Your task to perform on an android device: install app "Viber Messenger" Image 0: 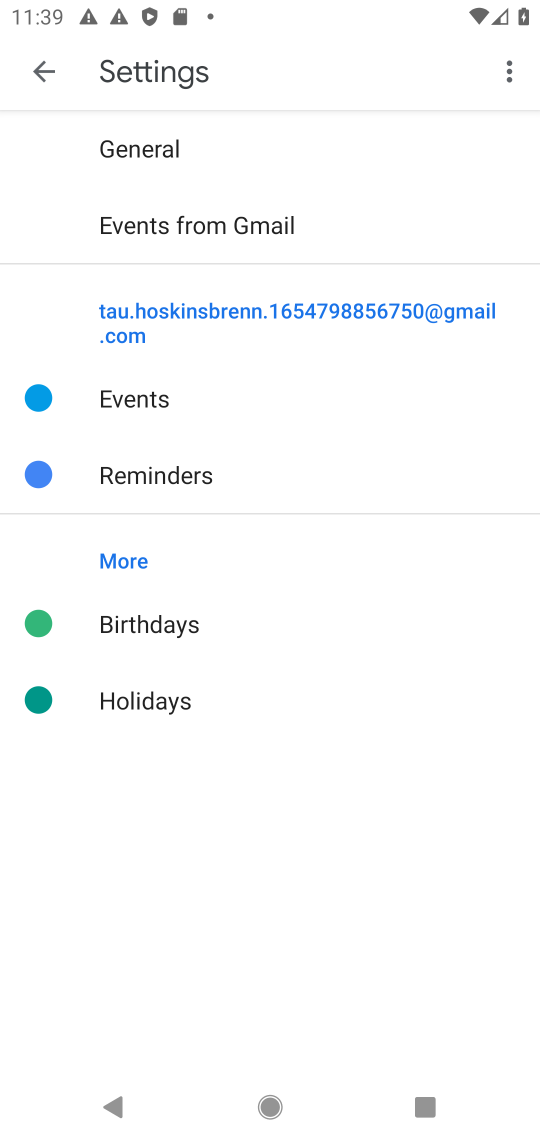
Step 0: press home button
Your task to perform on an android device: install app "Viber Messenger" Image 1: 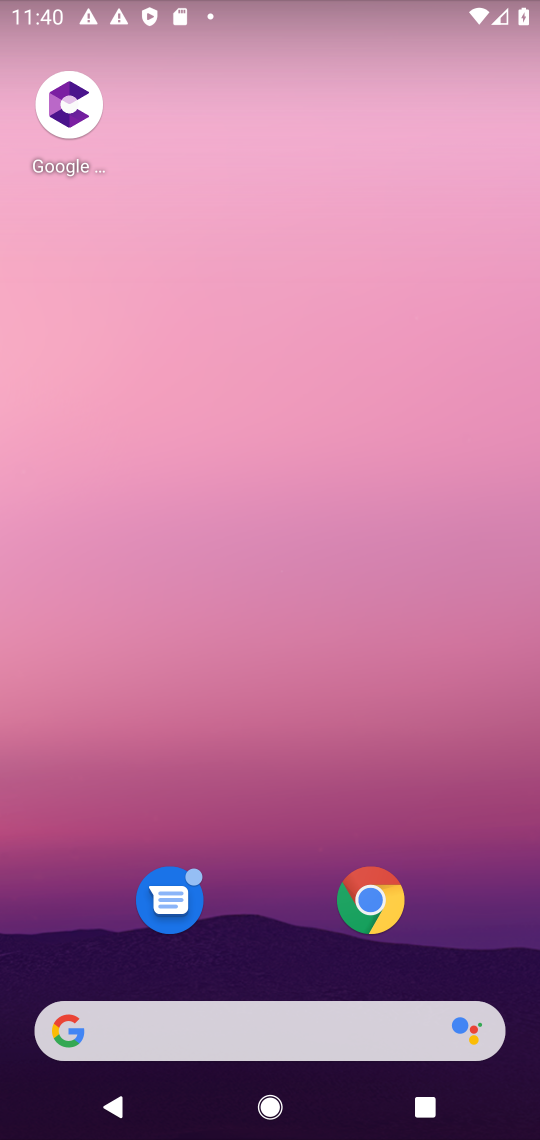
Step 1: drag from (354, 1009) to (2, 449)
Your task to perform on an android device: install app "Viber Messenger" Image 2: 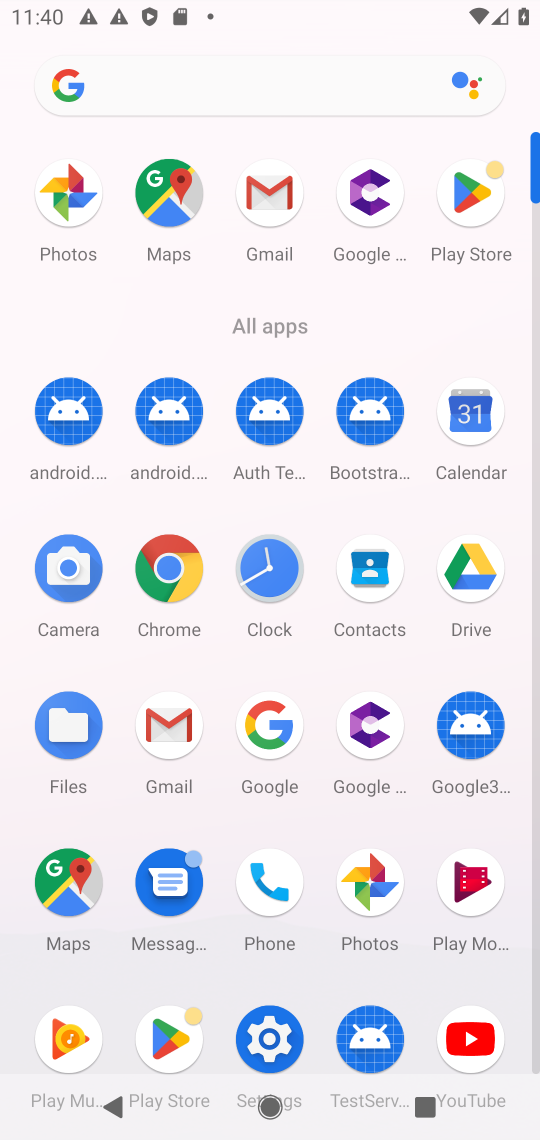
Step 2: click (462, 217)
Your task to perform on an android device: install app "Viber Messenger" Image 3: 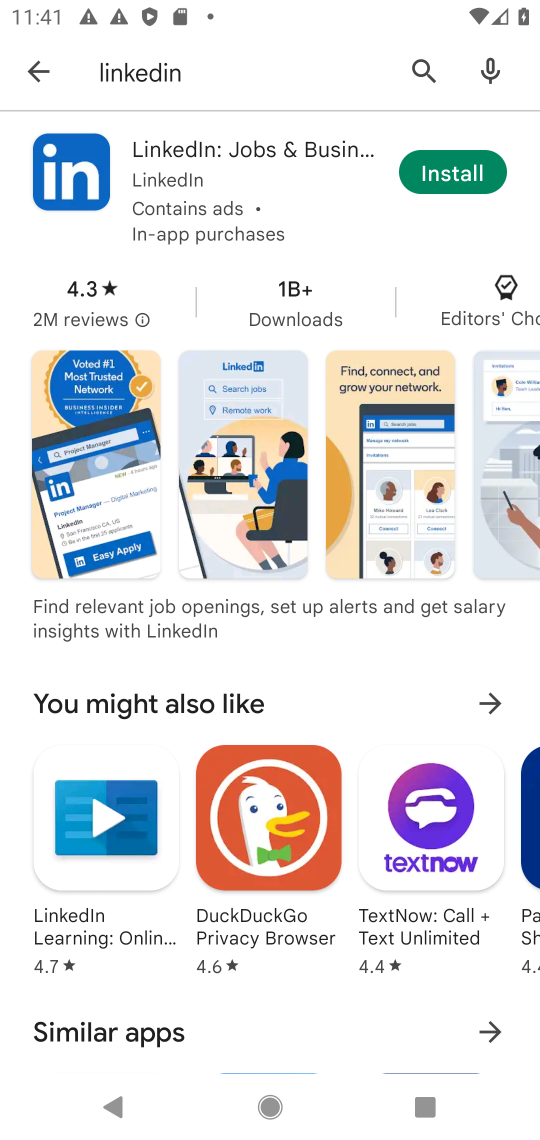
Step 3: click (417, 72)
Your task to perform on an android device: install app "Viber Messenger" Image 4: 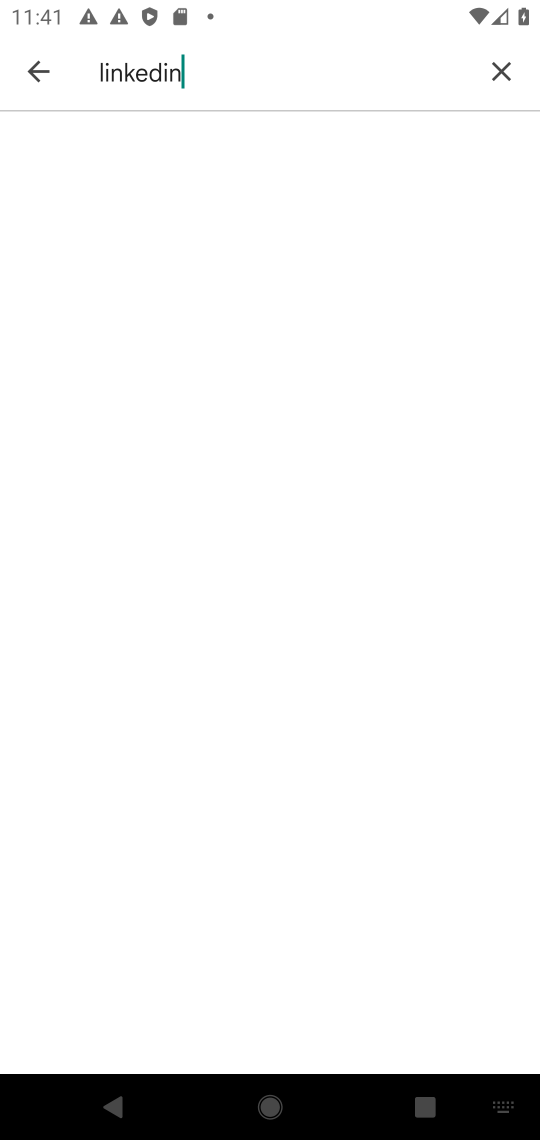
Step 4: click (504, 72)
Your task to perform on an android device: install app "Viber Messenger" Image 5: 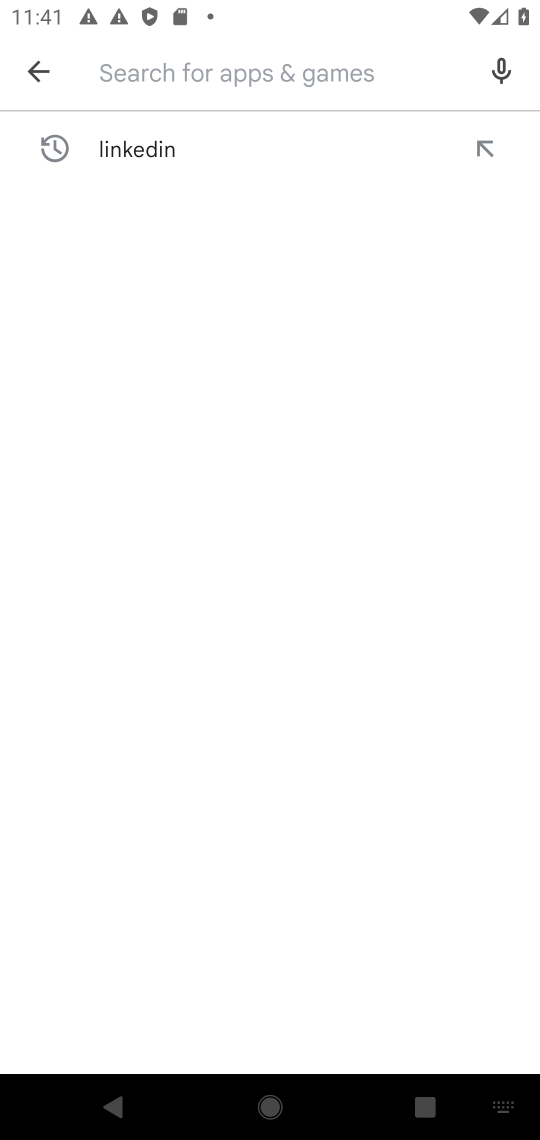
Step 5: type "viber Messenger"
Your task to perform on an android device: install app "Viber Messenger" Image 6: 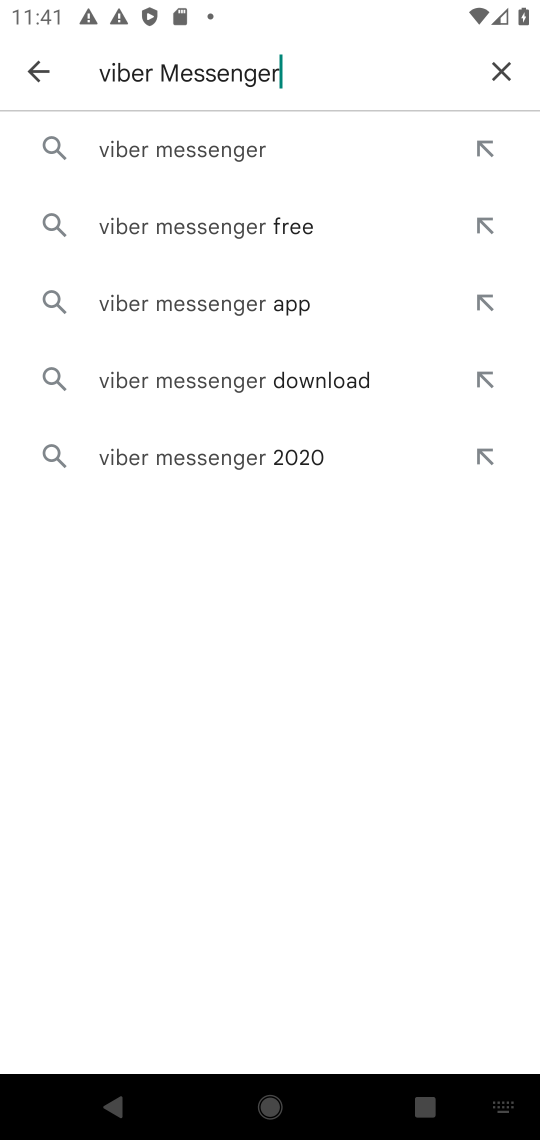
Step 6: type "viber"
Your task to perform on an android device: install app "Viber Messenger" Image 7: 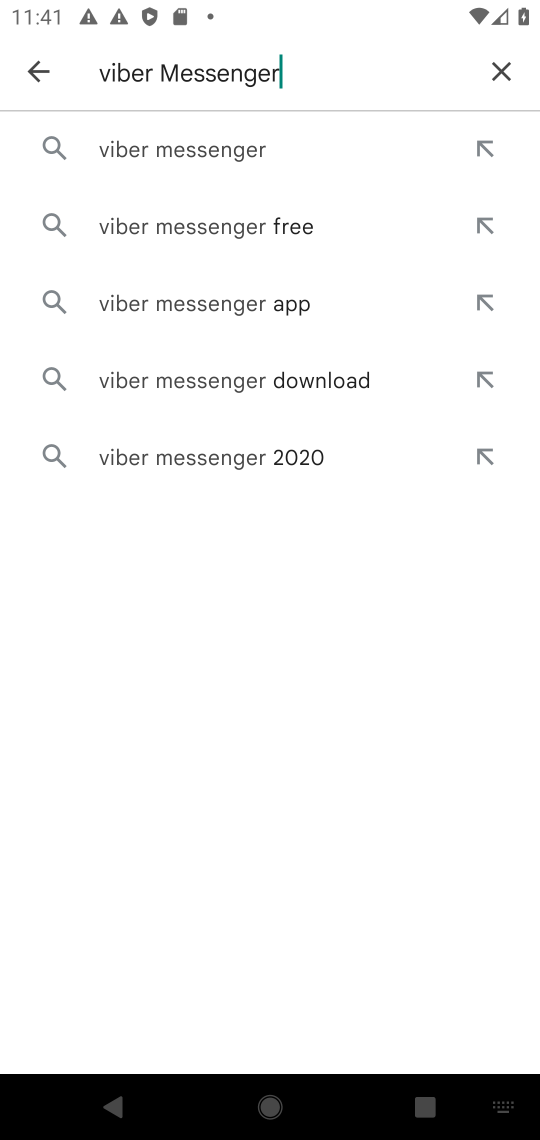
Step 7: click (225, 148)
Your task to perform on an android device: install app "Viber Messenger" Image 8: 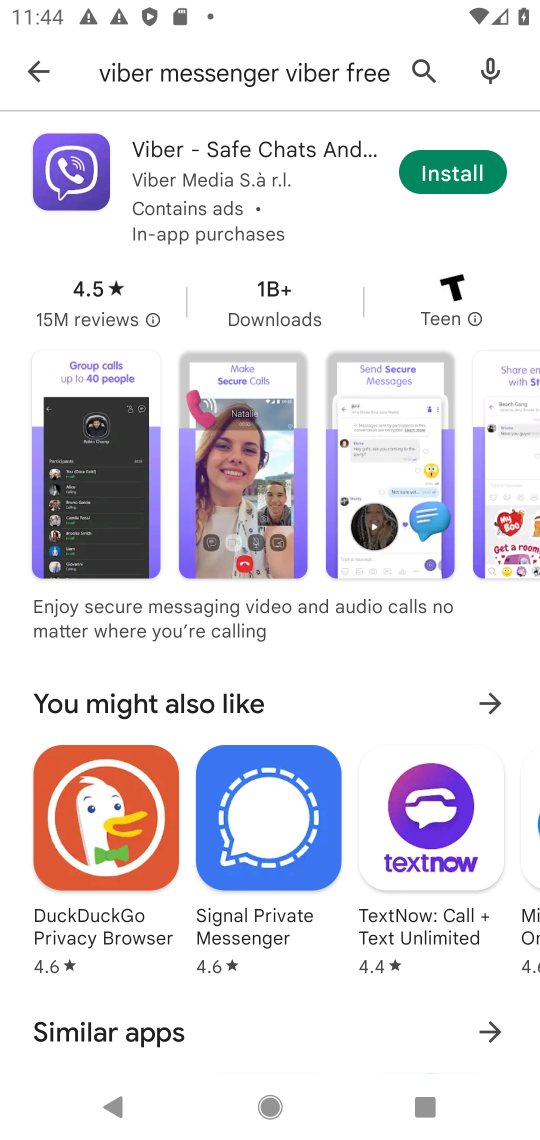
Step 8: click (452, 164)
Your task to perform on an android device: install app "Viber Messenger" Image 9: 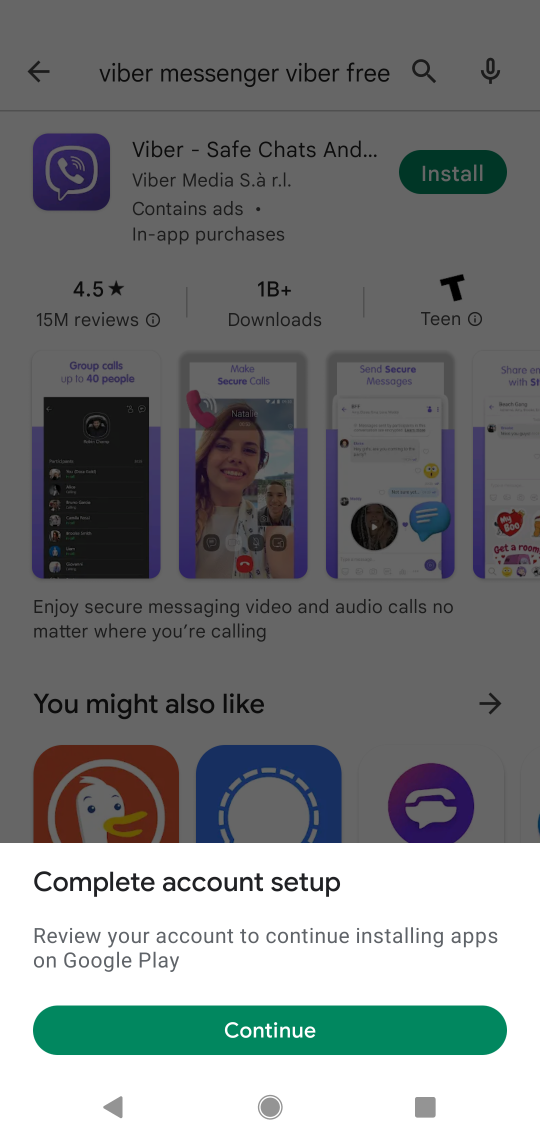
Step 9: click (384, 1031)
Your task to perform on an android device: install app "Viber Messenger" Image 10: 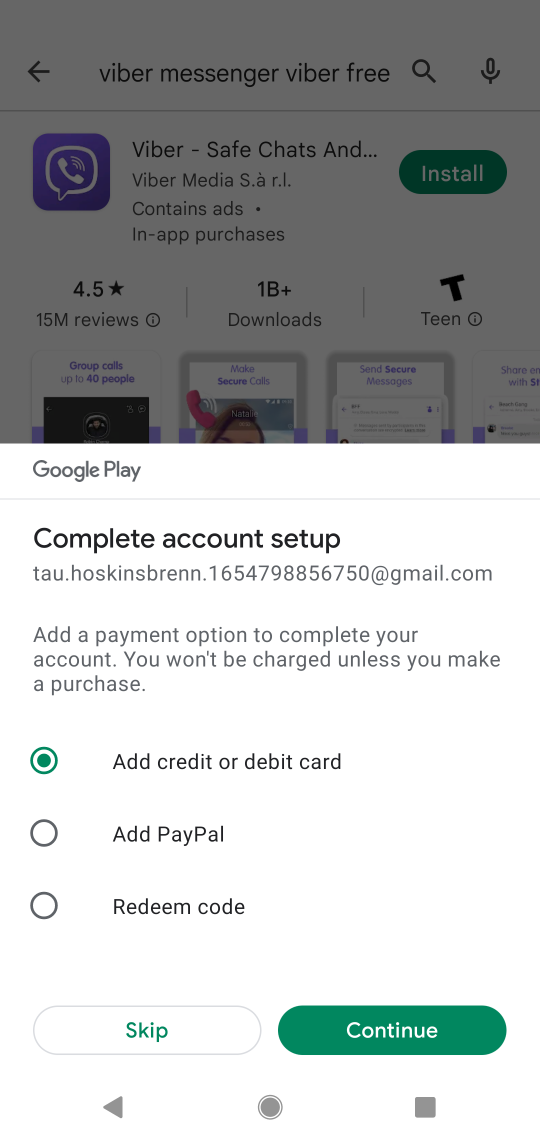
Step 10: click (161, 1027)
Your task to perform on an android device: install app "Viber Messenger" Image 11: 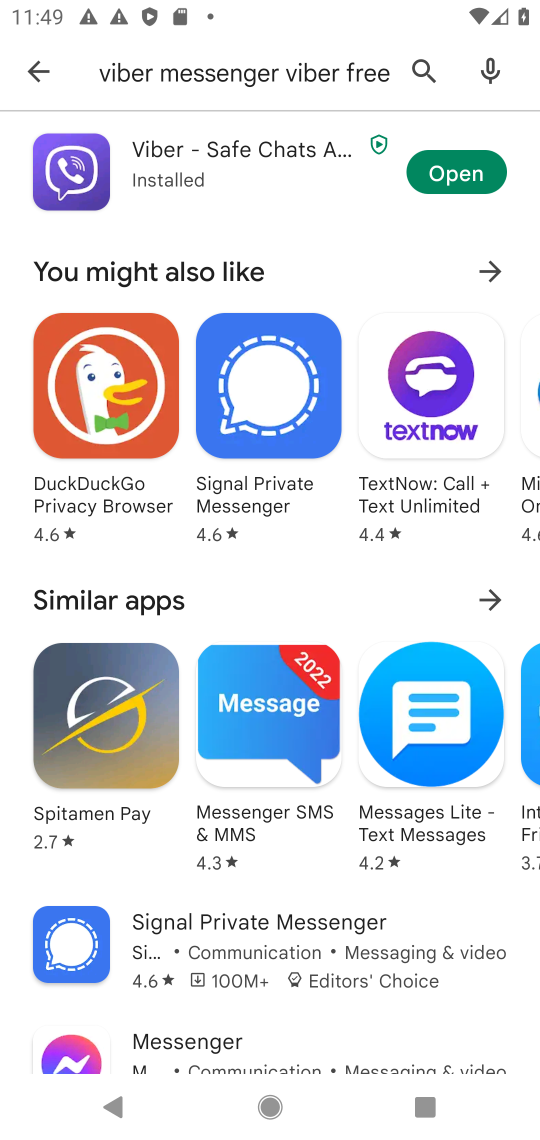
Step 11: task complete